Your task to perform on an android device: What's the weather? Image 0: 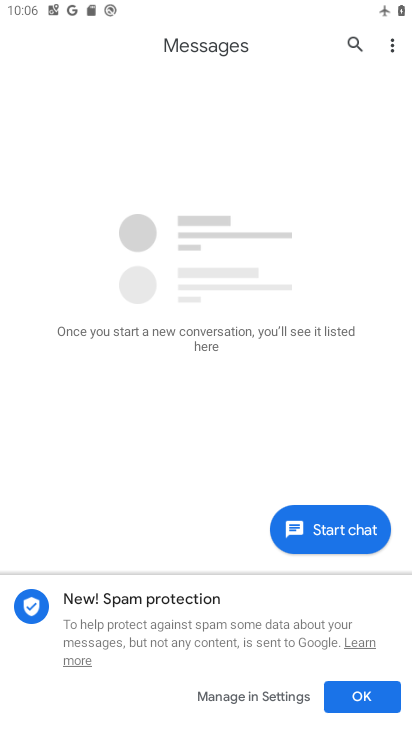
Step 0: press home button
Your task to perform on an android device: What's the weather? Image 1: 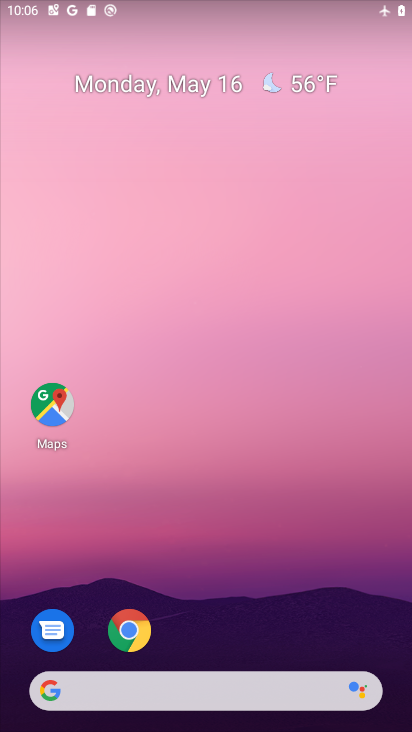
Step 1: click (186, 682)
Your task to perform on an android device: What's the weather? Image 2: 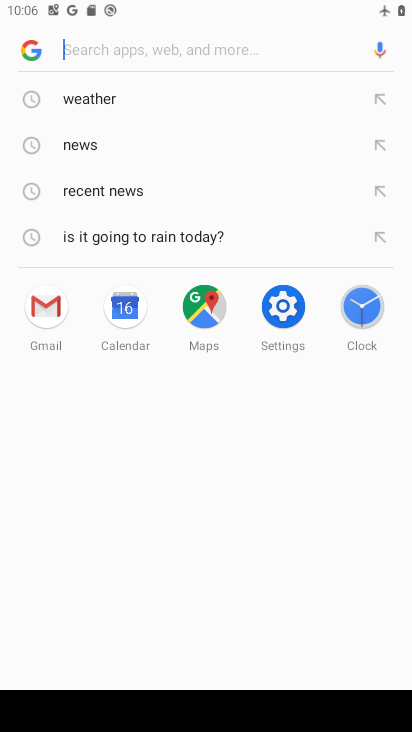
Step 2: click (80, 92)
Your task to perform on an android device: What's the weather? Image 3: 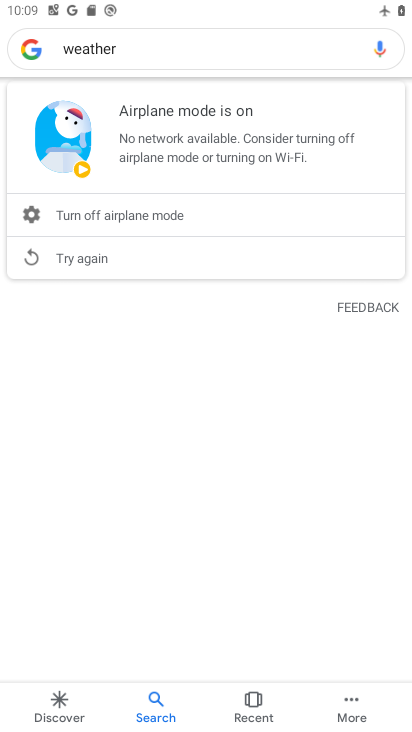
Step 3: task complete